Your task to perform on an android device: Show me recent news Image 0: 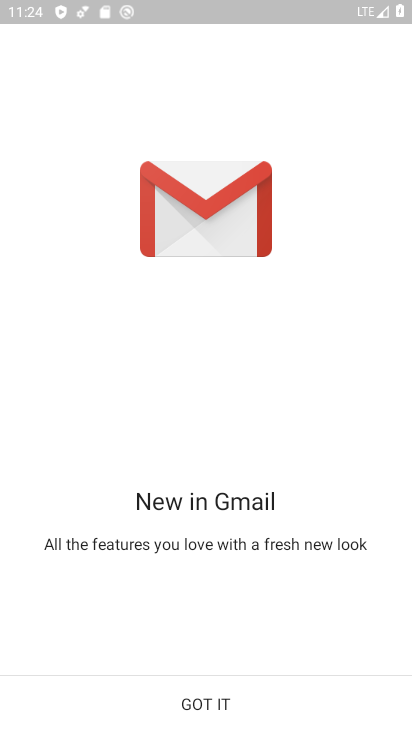
Step 0: click (180, 700)
Your task to perform on an android device: Show me recent news Image 1: 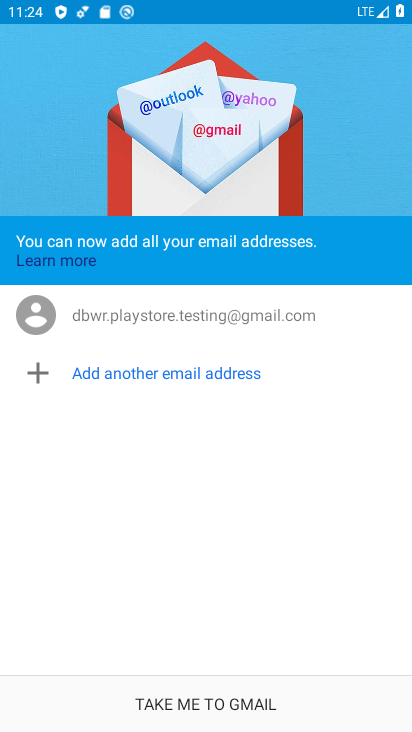
Step 1: press home button
Your task to perform on an android device: Show me recent news Image 2: 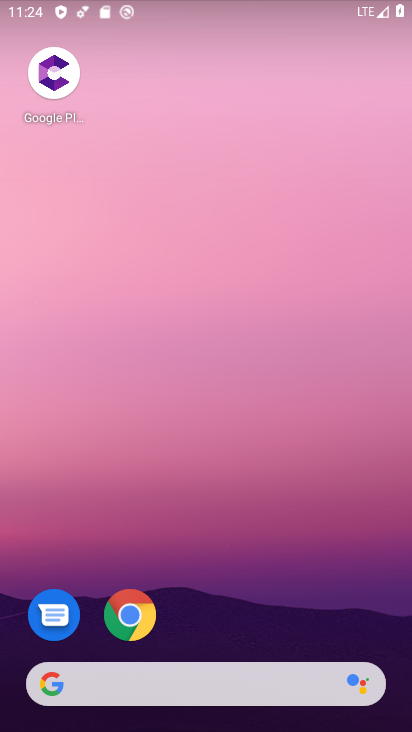
Step 2: drag from (250, 607) to (119, 3)
Your task to perform on an android device: Show me recent news Image 3: 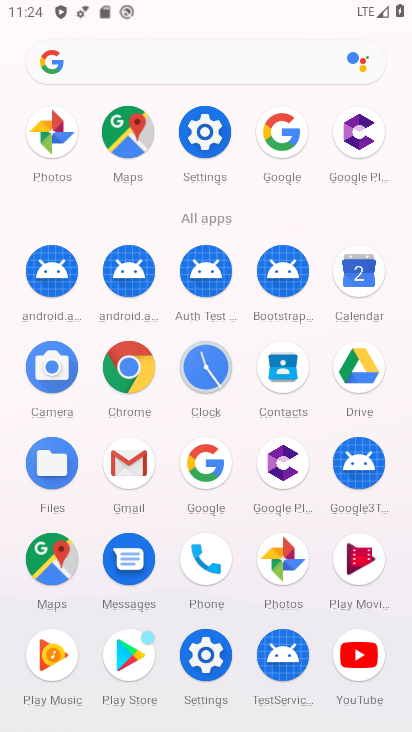
Step 3: click (208, 469)
Your task to perform on an android device: Show me recent news Image 4: 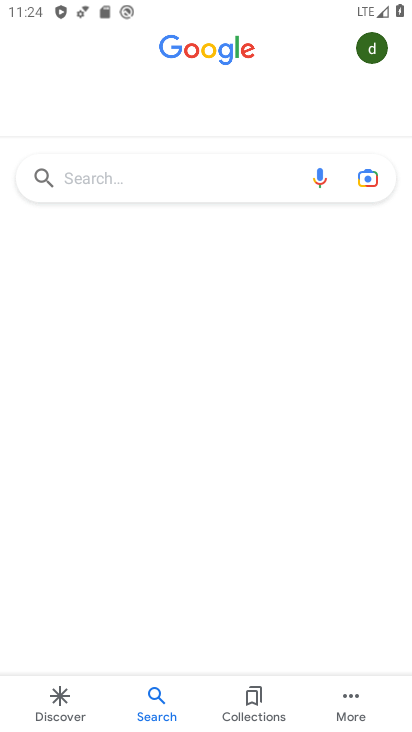
Step 4: click (174, 185)
Your task to perform on an android device: Show me recent news Image 5: 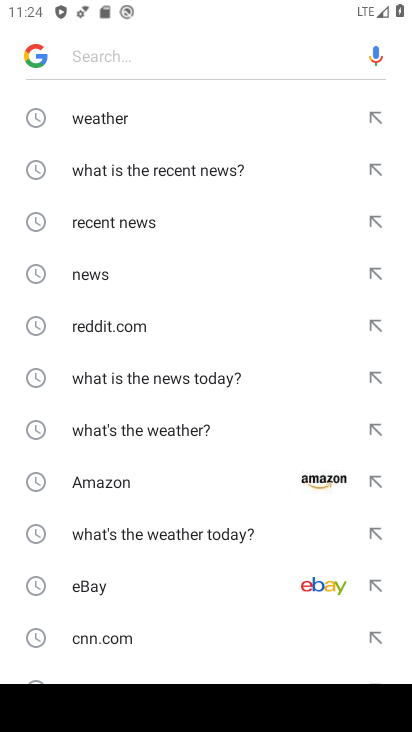
Step 5: click (149, 225)
Your task to perform on an android device: Show me recent news Image 6: 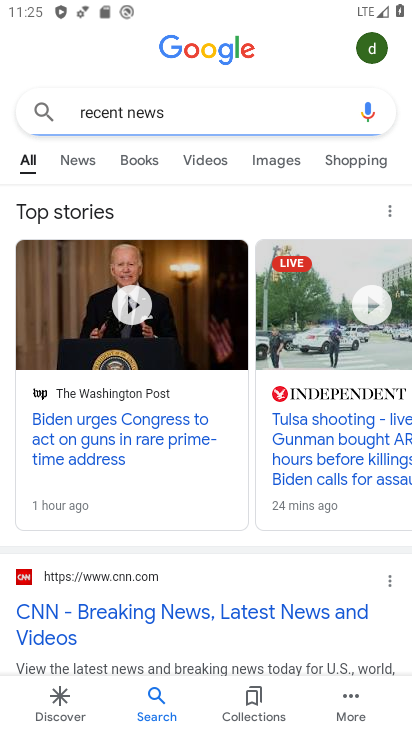
Step 6: task complete